Your task to perform on an android device: Go to eBay Image 0: 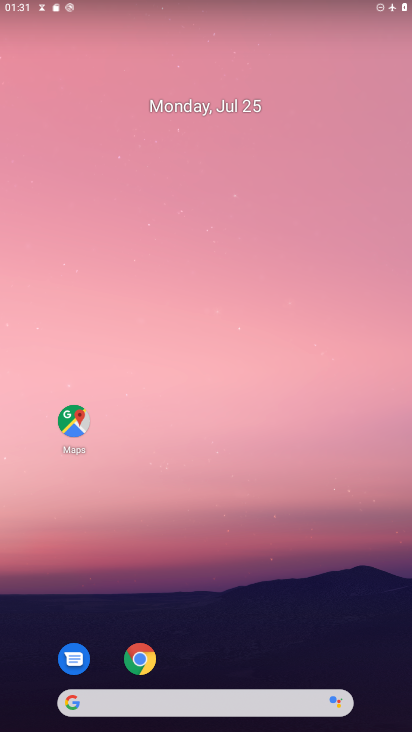
Step 0: click (135, 655)
Your task to perform on an android device: Go to eBay Image 1: 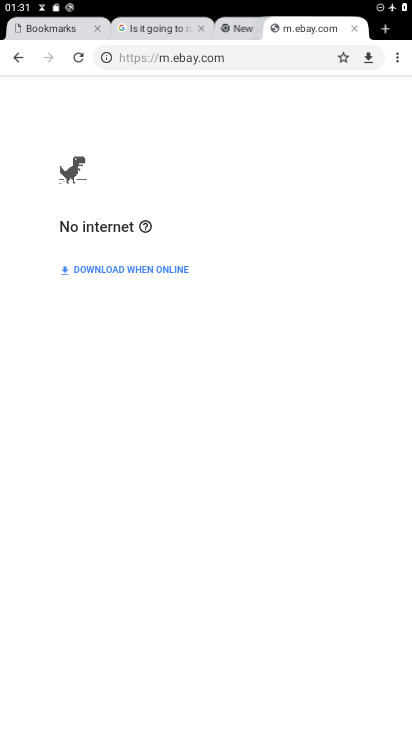
Step 1: click (392, 25)
Your task to perform on an android device: Go to eBay Image 2: 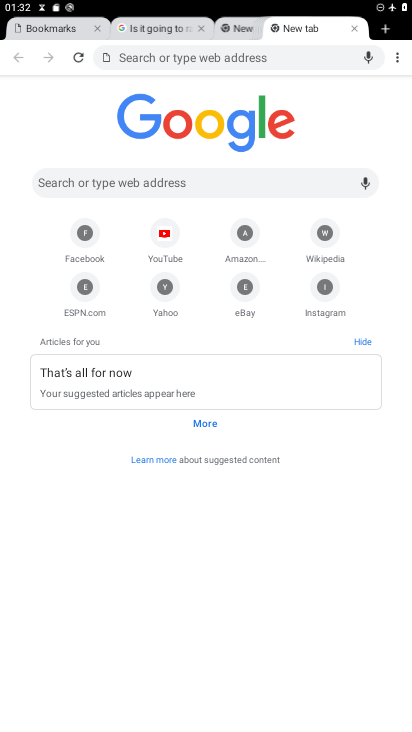
Step 2: click (247, 282)
Your task to perform on an android device: Go to eBay Image 3: 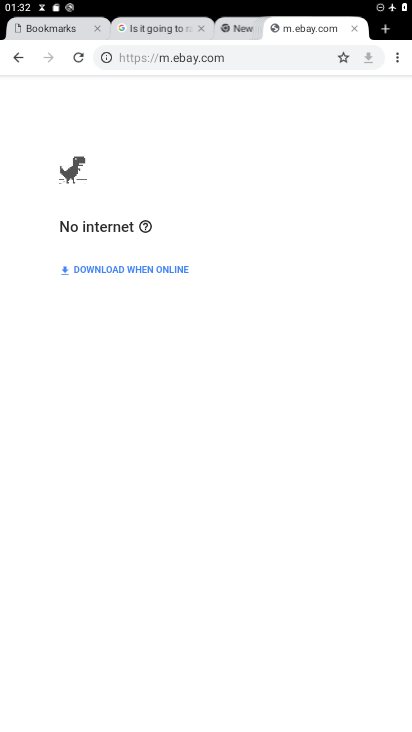
Step 3: task complete